Your task to perform on an android device: Go to notification settings Image 0: 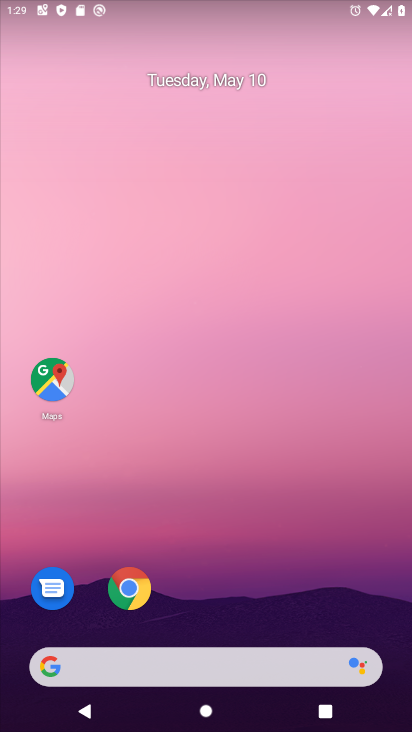
Step 0: drag from (282, 233) to (282, 193)
Your task to perform on an android device: Go to notification settings Image 1: 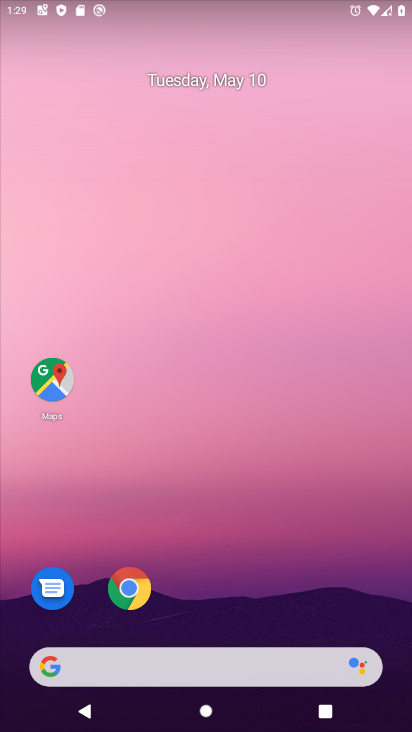
Step 1: drag from (231, 616) to (274, 197)
Your task to perform on an android device: Go to notification settings Image 2: 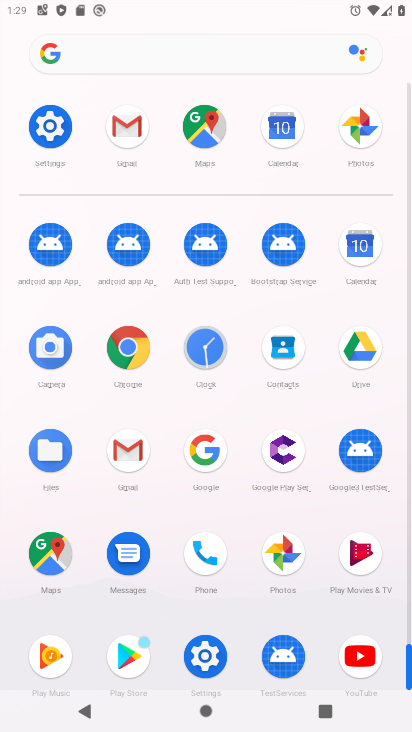
Step 2: click (53, 119)
Your task to perform on an android device: Go to notification settings Image 3: 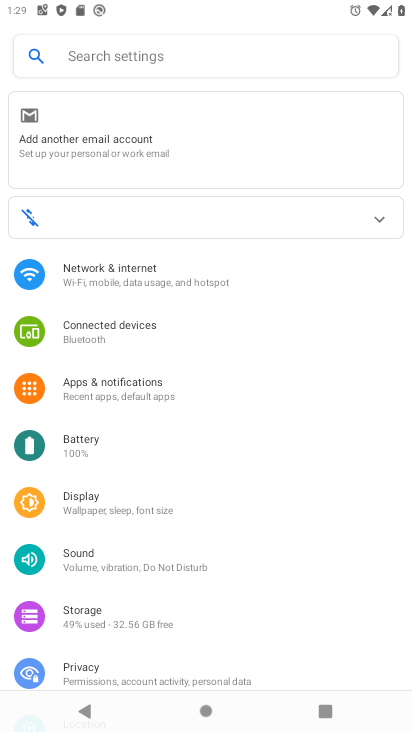
Step 3: click (148, 379)
Your task to perform on an android device: Go to notification settings Image 4: 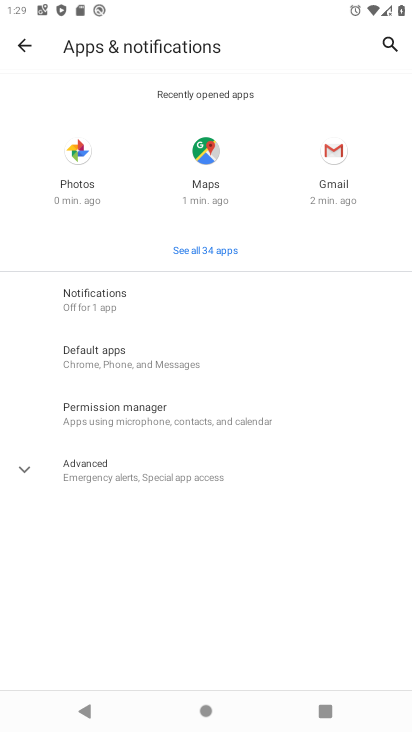
Step 4: click (93, 292)
Your task to perform on an android device: Go to notification settings Image 5: 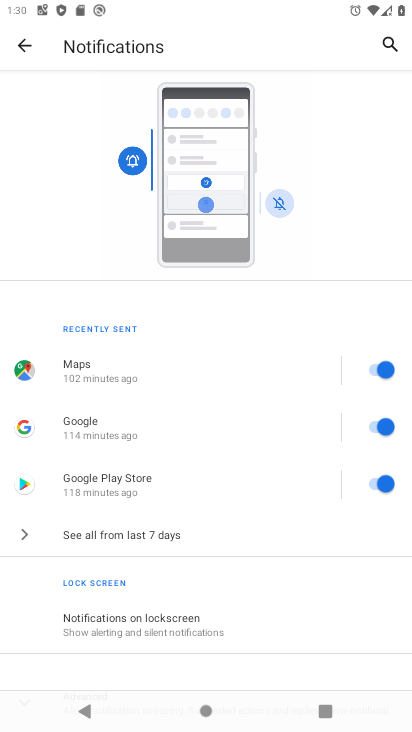
Step 5: task complete